Your task to perform on an android device: find snoozed emails in the gmail app Image 0: 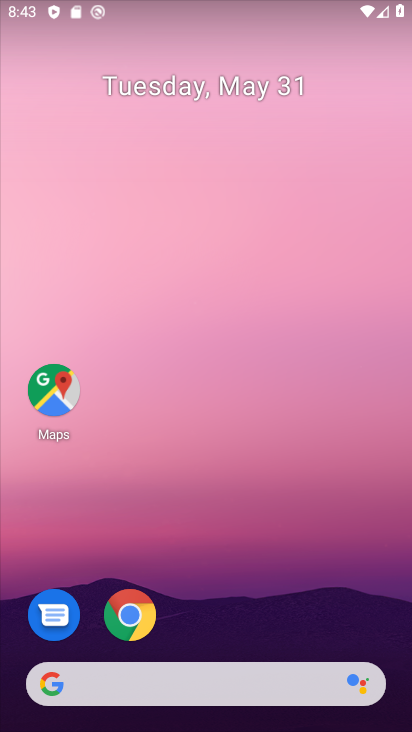
Step 0: drag from (294, 559) to (265, 121)
Your task to perform on an android device: find snoozed emails in the gmail app Image 1: 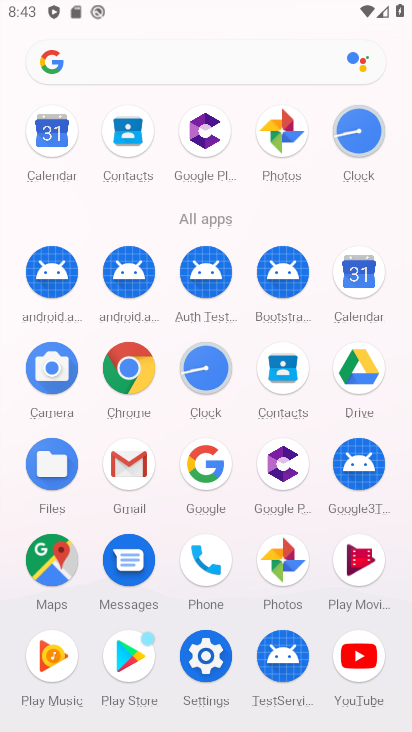
Step 1: click (131, 458)
Your task to perform on an android device: find snoozed emails in the gmail app Image 2: 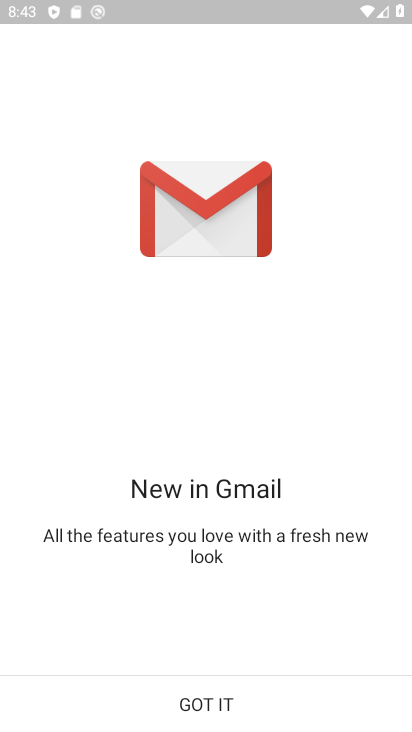
Step 2: click (219, 697)
Your task to perform on an android device: find snoozed emails in the gmail app Image 3: 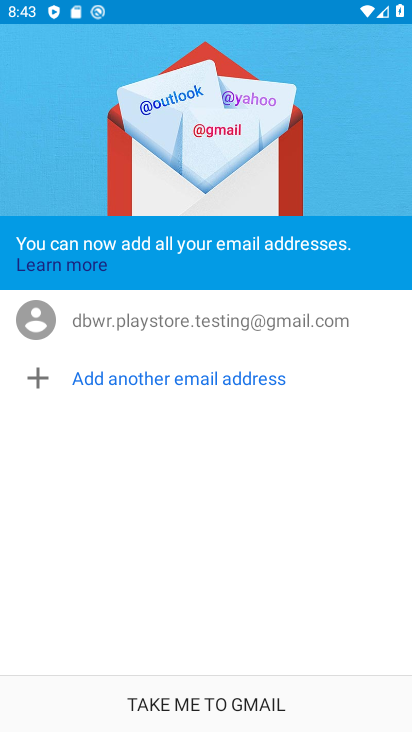
Step 3: click (226, 696)
Your task to perform on an android device: find snoozed emails in the gmail app Image 4: 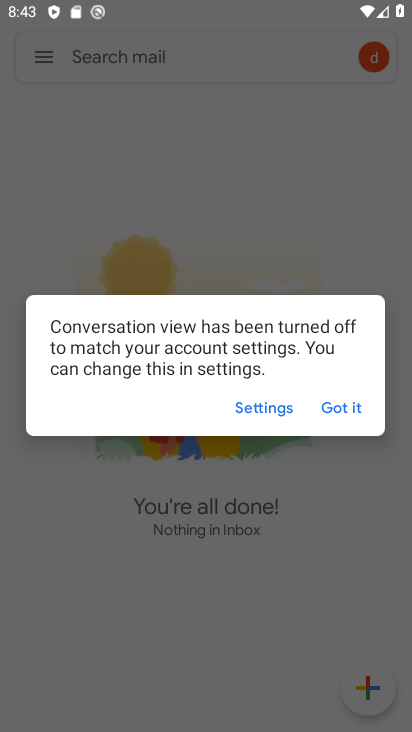
Step 4: click (358, 403)
Your task to perform on an android device: find snoozed emails in the gmail app Image 5: 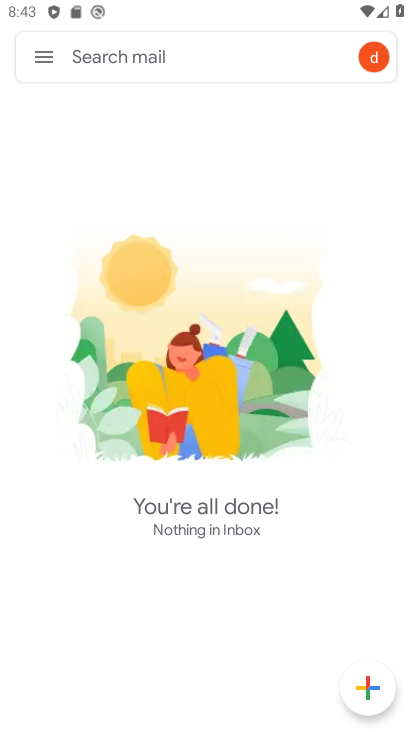
Step 5: click (47, 53)
Your task to perform on an android device: find snoozed emails in the gmail app Image 6: 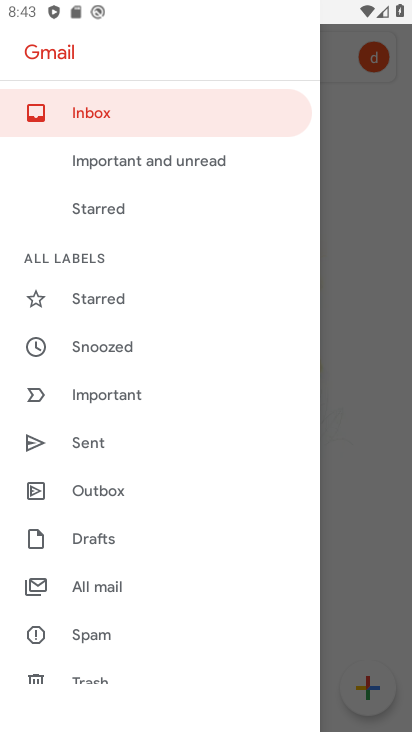
Step 6: click (96, 340)
Your task to perform on an android device: find snoozed emails in the gmail app Image 7: 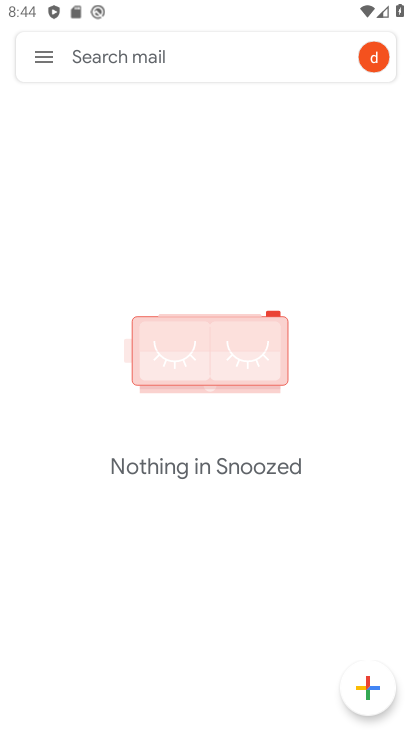
Step 7: click (208, 339)
Your task to perform on an android device: find snoozed emails in the gmail app Image 8: 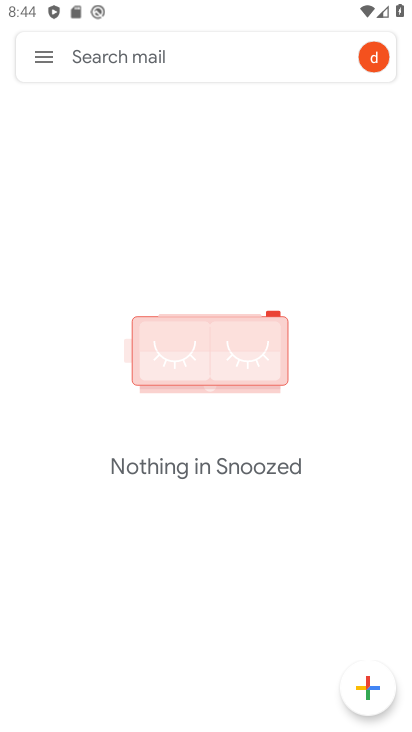
Step 8: click (318, 499)
Your task to perform on an android device: find snoozed emails in the gmail app Image 9: 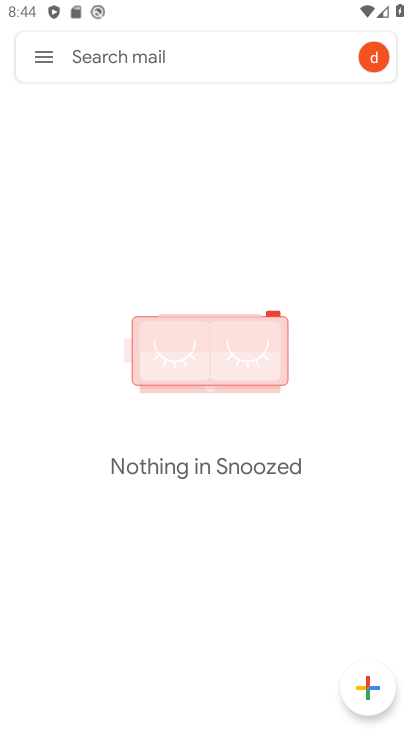
Step 9: task complete